Your task to perform on an android device: turn on sleep mode Image 0: 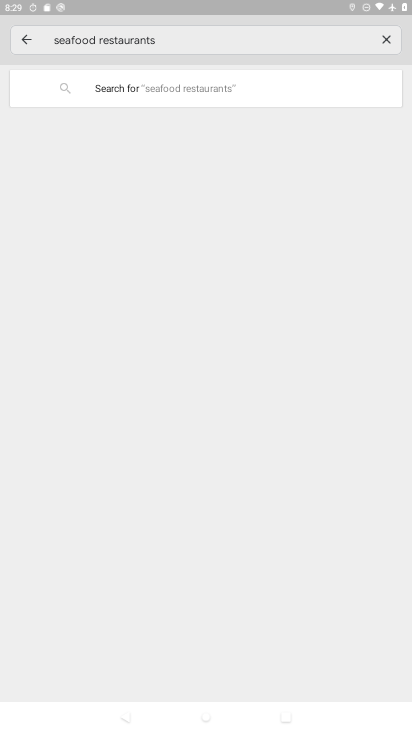
Step 0: press home button
Your task to perform on an android device: turn on sleep mode Image 1: 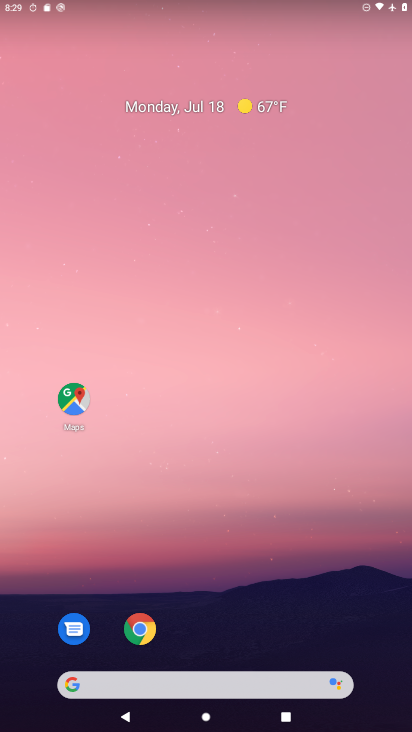
Step 1: drag from (219, 654) to (159, 88)
Your task to perform on an android device: turn on sleep mode Image 2: 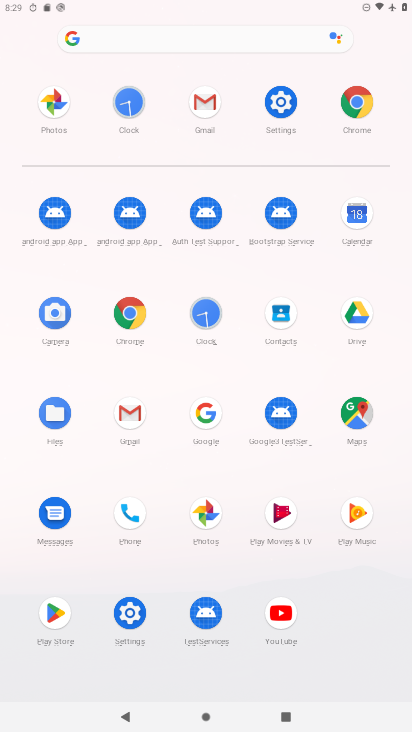
Step 2: click (261, 103)
Your task to perform on an android device: turn on sleep mode Image 3: 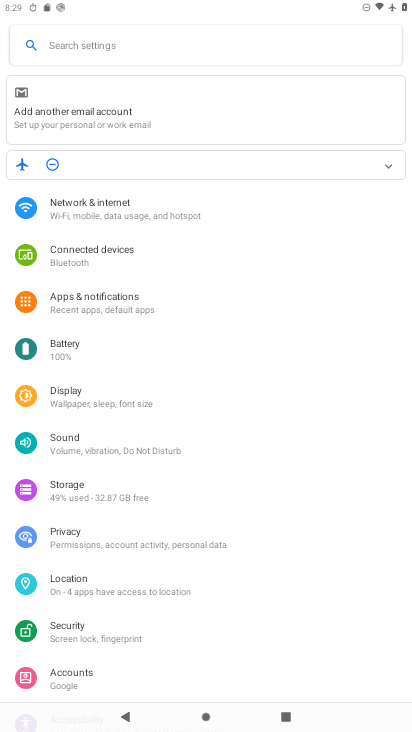
Step 3: click (86, 401)
Your task to perform on an android device: turn on sleep mode Image 4: 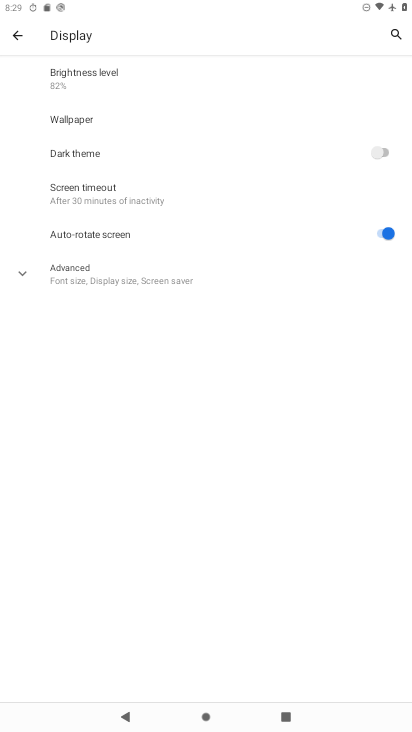
Step 4: click (20, 32)
Your task to perform on an android device: turn on sleep mode Image 5: 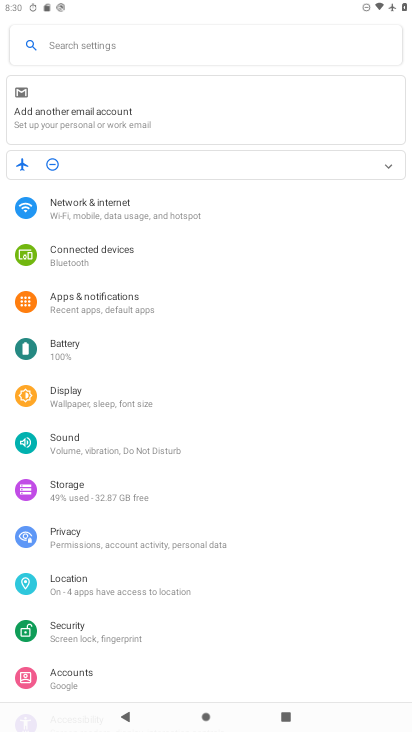
Step 5: click (58, 384)
Your task to perform on an android device: turn on sleep mode Image 6: 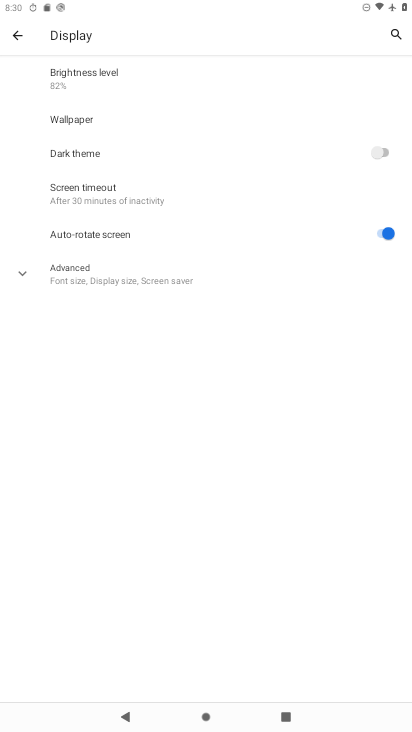
Step 6: task complete